Your task to perform on an android device: Open eBay Image 0: 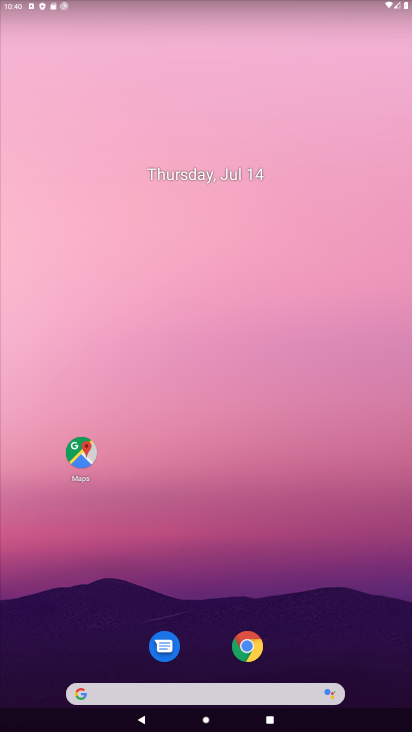
Step 0: click (258, 634)
Your task to perform on an android device: Open eBay Image 1: 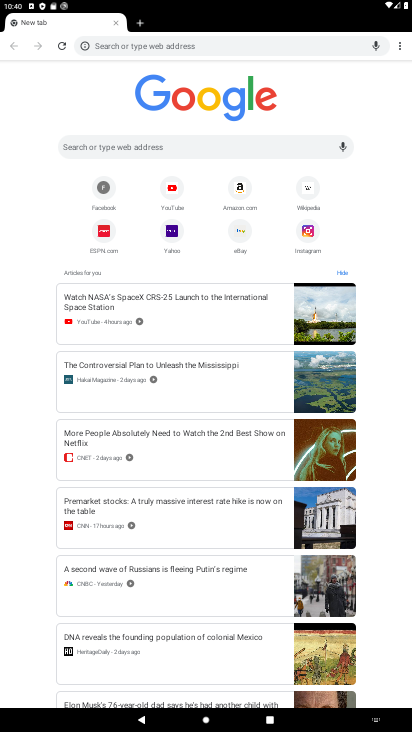
Step 1: click (228, 236)
Your task to perform on an android device: Open eBay Image 2: 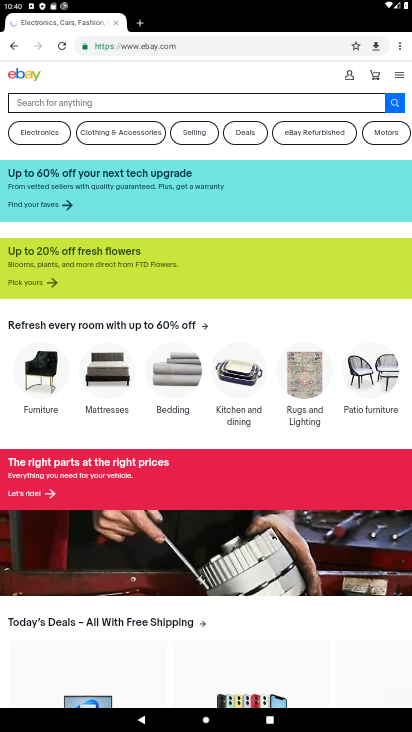
Step 2: task complete